Your task to perform on an android device: open app "Spotify" (install if not already installed) Image 0: 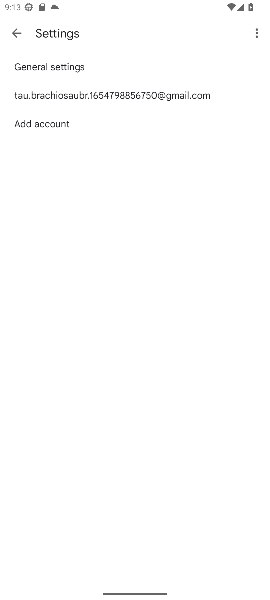
Step 0: press home button
Your task to perform on an android device: open app "Spotify" (install if not already installed) Image 1: 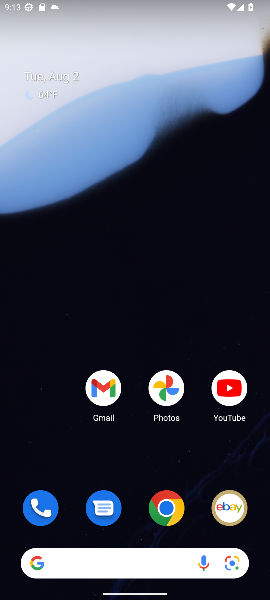
Step 1: drag from (171, 526) to (186, 163)
Your task to perform on an android device: open app "Spotify" (install if not already installed) Image 2: 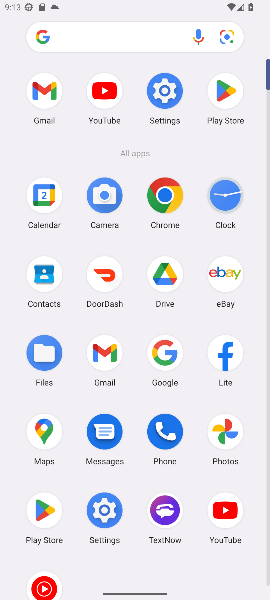
Step 2: click (232, 105)
Your task to perform on an android device: open app "Spotify" (install if not already installed) Image 3: 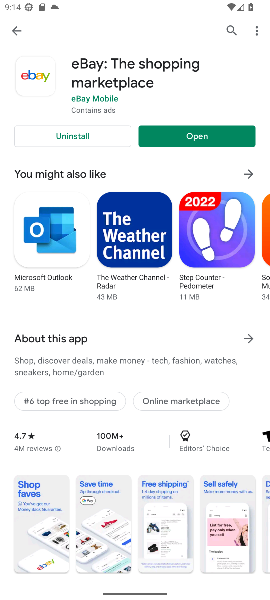
Step 3: click (16, 28)
Your task to perform on an android device: open app "Spotify" (install if not already installed) Image 4: 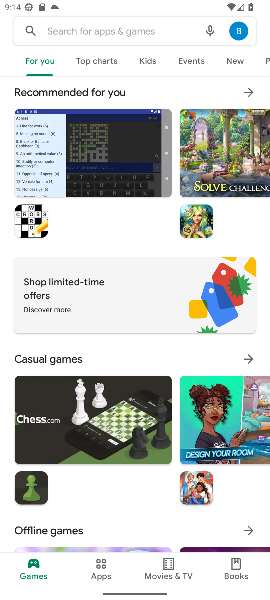
Step 4: click (77, 32)
Your task to perform on an android device: open app "Spotify" (install if not already installed) Image 5: 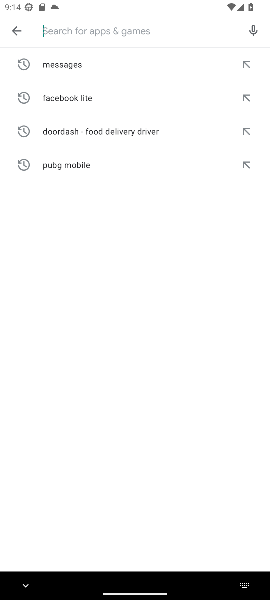
Step 5: type "spotify"
Your task to perform on an android device: open app "Spotify" (install if not already installed) Image 6: 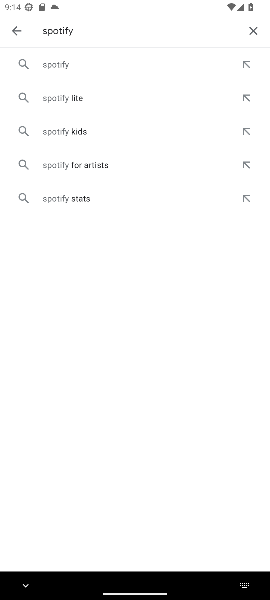
Step 6: click (89, 67)
Your task to perform on an android device: open app "Spotify" (install if not already installed) Image 7: 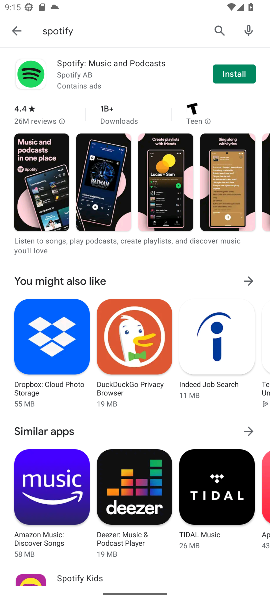
Step 7: click (236, 77)
Your task to perform on an android device: open app "Spotify" (install if not already installed) Image 8: 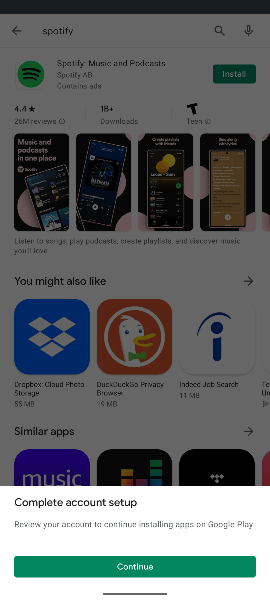
Step 8: task complete